Your task to perform on an android device: Check the weather Image 0: 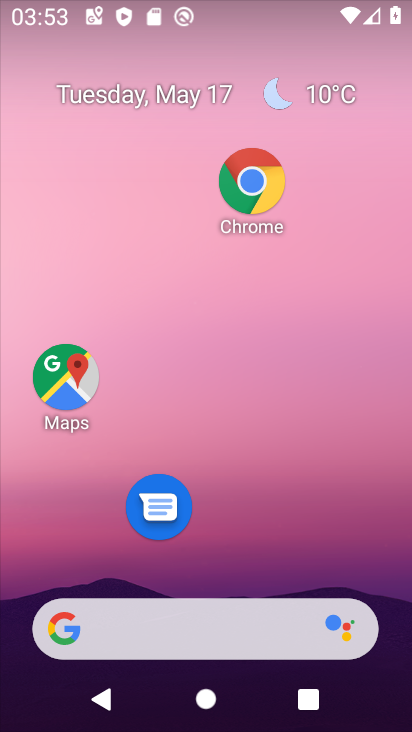
Step 0: click (331, 105)
Your task to perform on an android device: Check the weather Image 1: 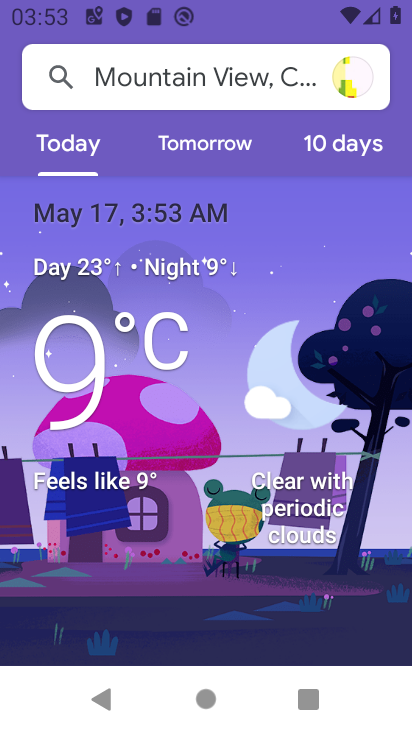
Step 1: task complete